Your task to perform on an android device: Go to calendar. Show me events next week Image 0: 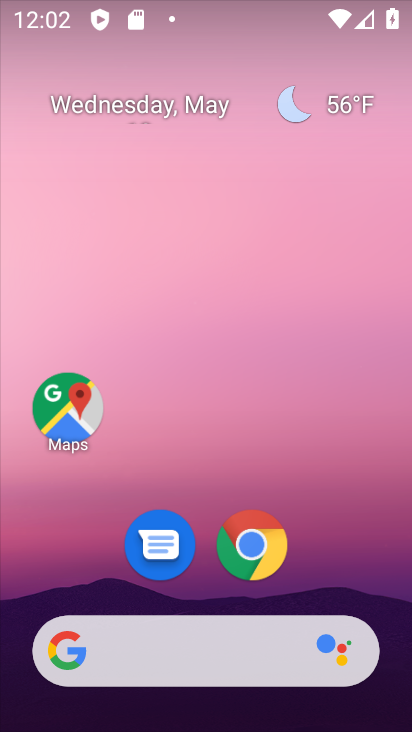
Step 0: drag from (328, 551) to (258, 52)
Your task to perform on an android device: Go to calendar. Show me events next week Image 1: 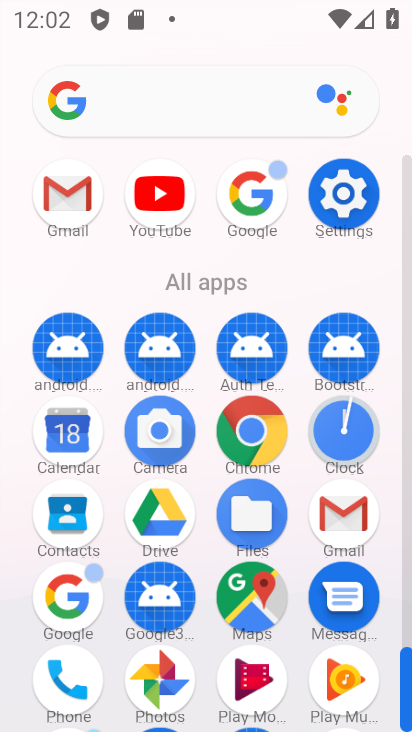
Step 1: click (66, 437)
Your task to perform on an android device: Go to calendar. Show me events next week Image 2: 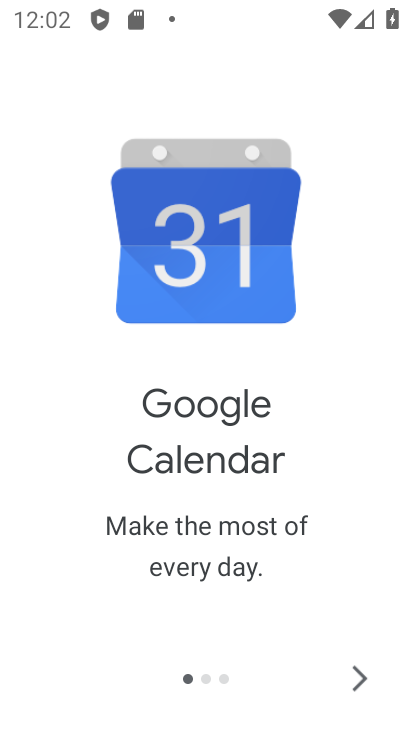
Step 2: click (362, 676)
Your task to perform on an android device: Go to calendar. Show me events next week Image 3: 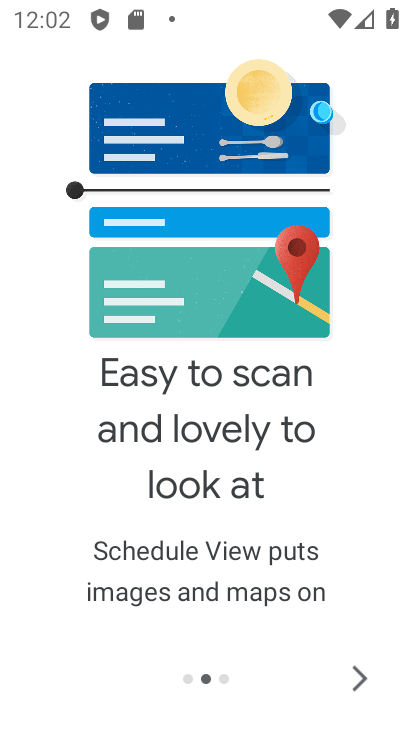
Step 3: click (362, 676)
Your task to perform on an android device: Go to calendar. Show me events next week Image 4: 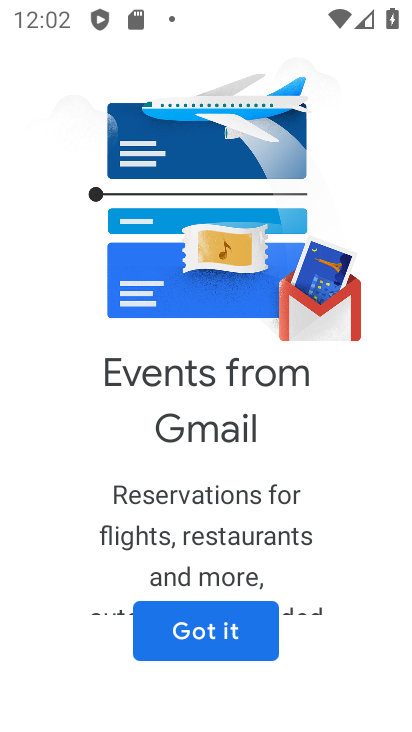
Step 4: click (203, 637)
Your task to perform on an android device: Go to calendar. Show me events next week Image 5: 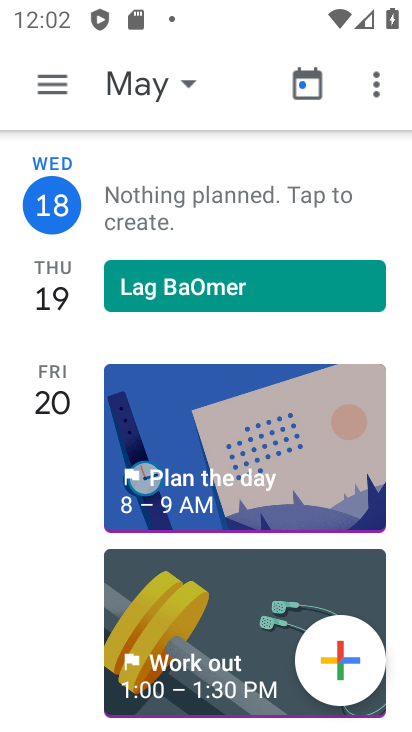
Step 5: click (185, 77)
Your task to perform on an android device: Go to calendar. Show me events next week Image 6: 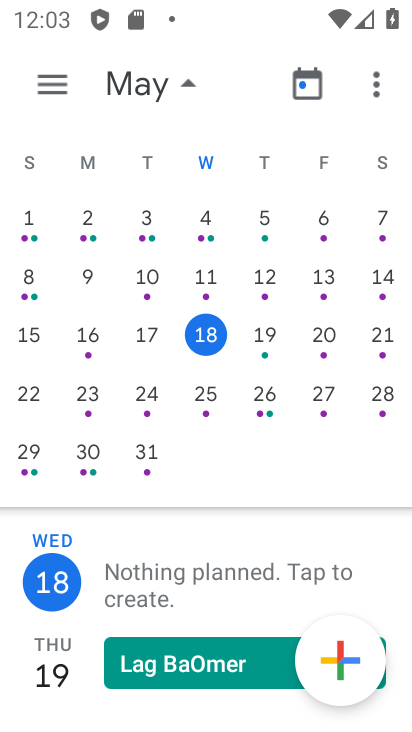
Step 6: drag from (365, 311) to (411, 353)
Your task to perform on an android device: Go to calendar. Show me events next week Image 7: 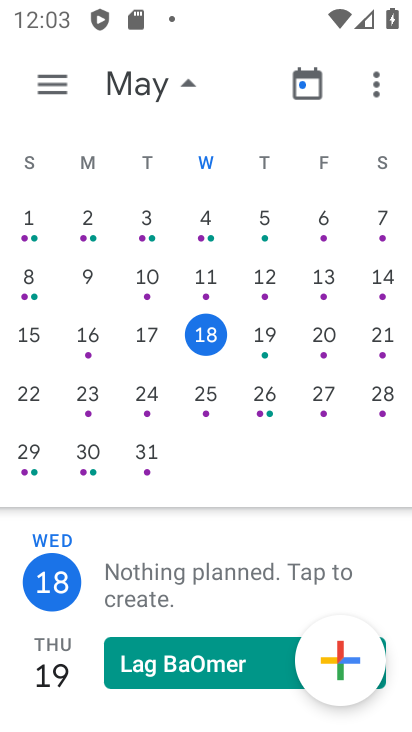
Step 7: click (90, 398)
Your task to perform on an android device: Go to calendar. Show me events next week Image 8: 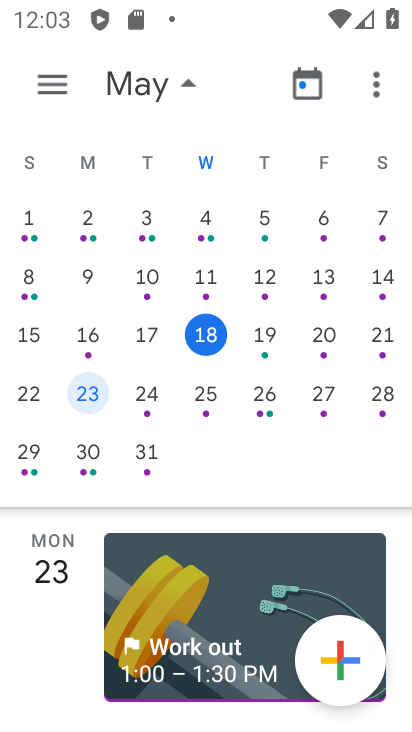
Step 8: click (63, 88)
Your task to perform on an android device: Go to calendar. Show me events next week Image 9: 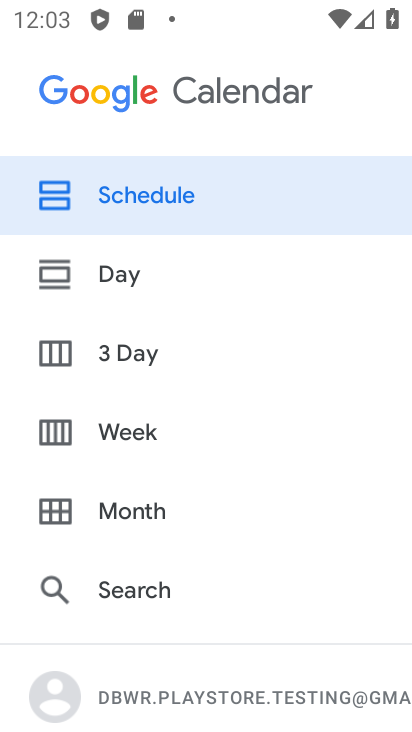
Step 9: click (128, 433)
Your task to perform on an android device: Go to calendar. Show me events next week Image 10: 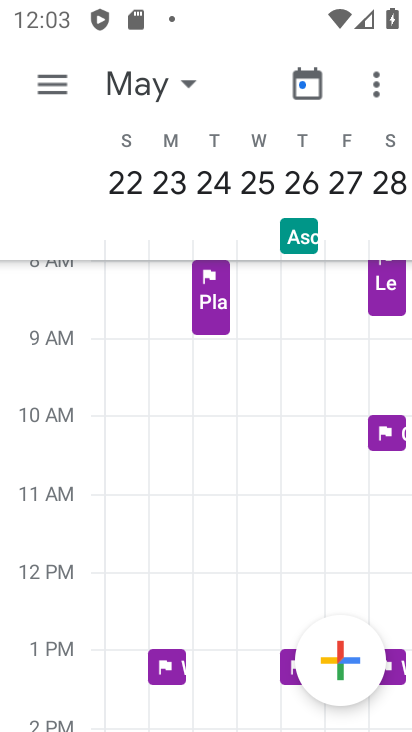
Step 10: task complete